Your task to perform on an android device: When is my next appointment? Image 0: 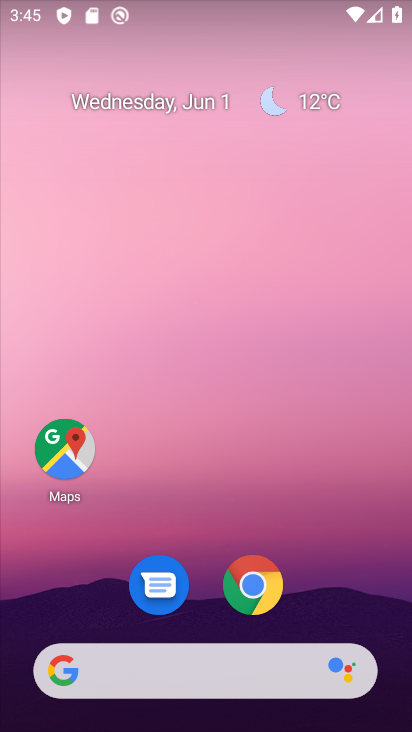
Step 0: drag from (255, 478) to (245, 0)
Your task to perform on an android device: When is my next appointment? Image 1: 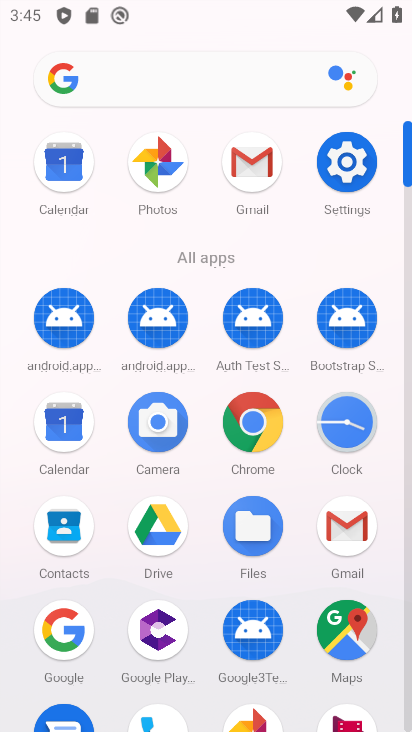
Step 1: click (62, 171)
Your task to perform on an android device: When is my next appointment? Image 2: 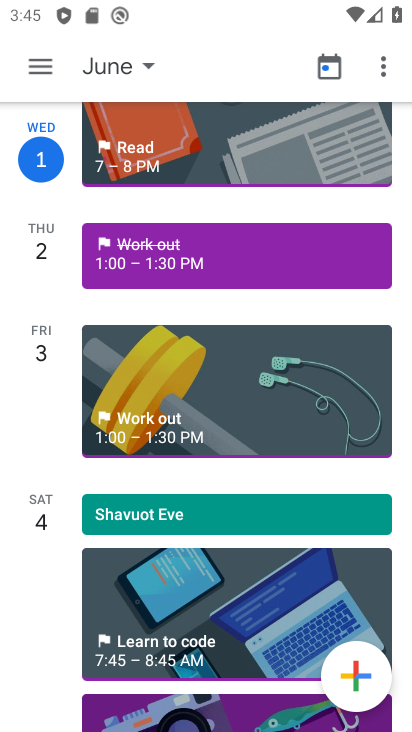
Step 2: drag from (305, 269) to (270, 582)
Your task to perform on an android device: When is my next appointment? Image 3: 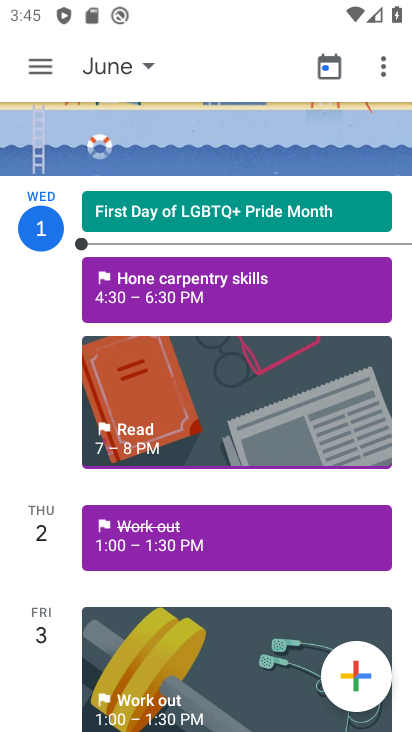
Step 3: click (276, 302)
Your task to perform on an android device: When is my next appointment? Image 4: 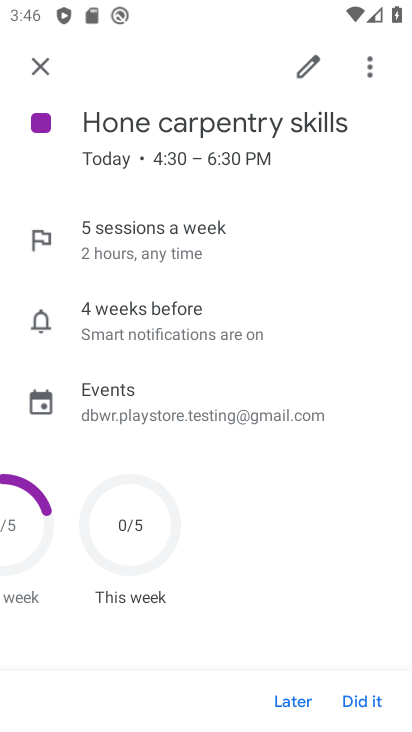
Step 4: click (43, 58)
Your task to perform on an android device: When is my next appointment? Image 5: 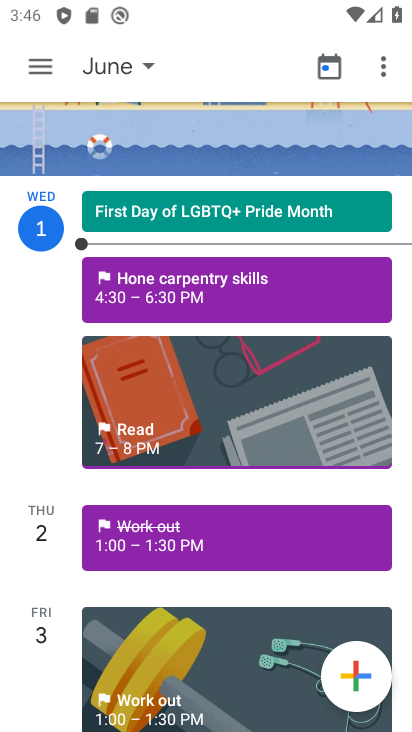
Step 5: task complete